Your task to perform on an android device: Open CNN.com Image 0: 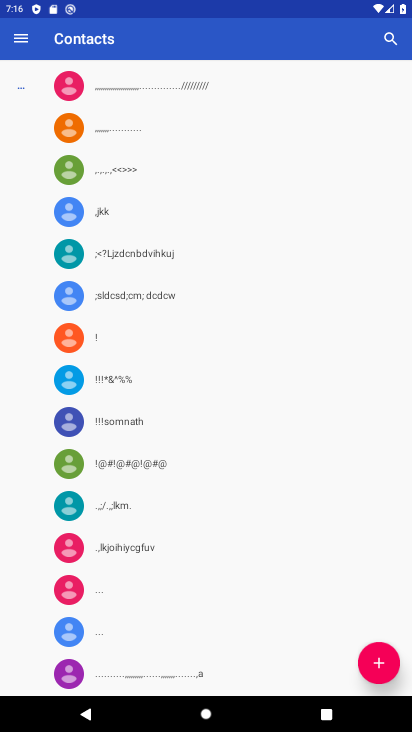
Step 0: press home button
Your task to perform on an android device: Open CNN.com Image 1: 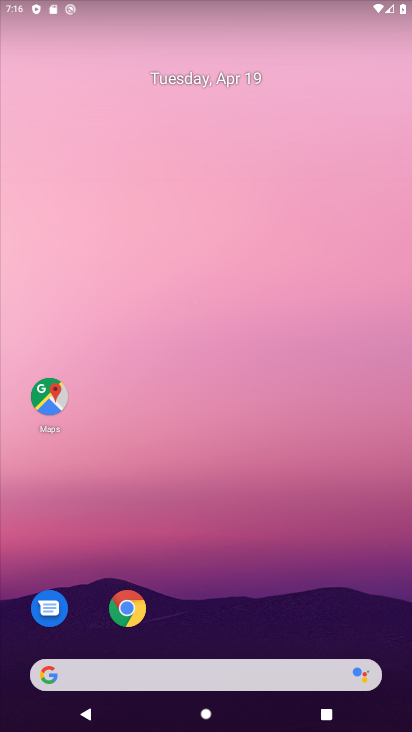
Step 1: click (129, 600)
Your task to perform on an android device: Open CNN.com Image 2: 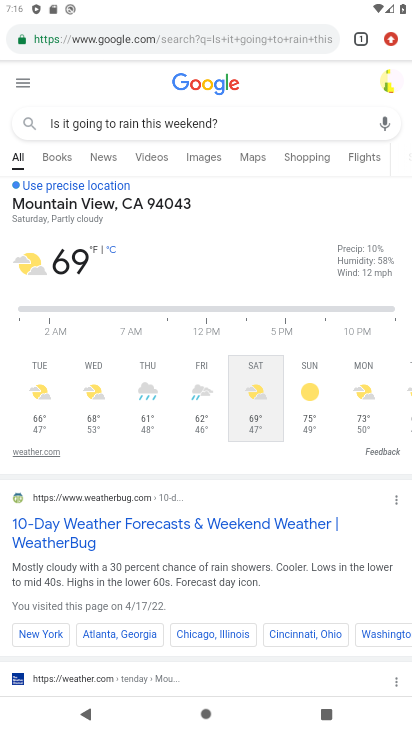
Step 2: click (274, 34)
Your task to perform on an android device: Open CNN.com Image 3: 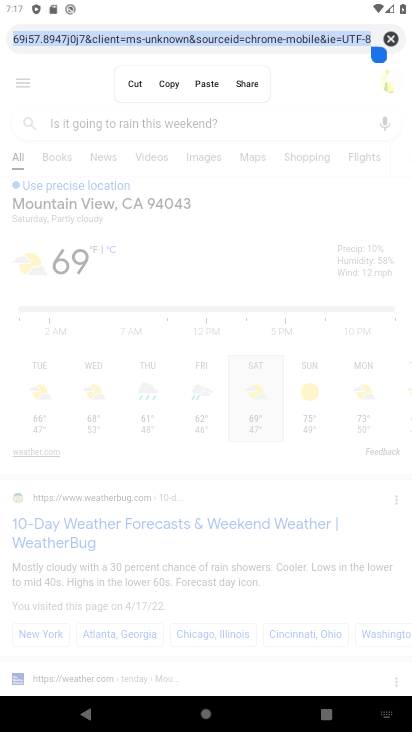
Step 3: click (390, 35)
Your task to perform on an android device: Open CNN.com Image 4: 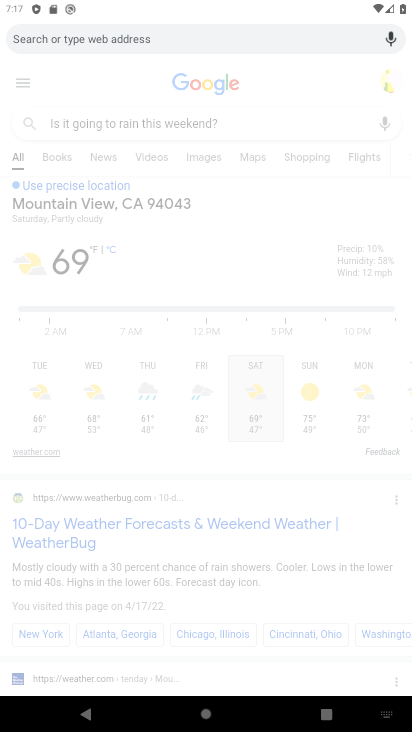
Step 4: type "CNN.com"
Your task to perform on an android device: Open CNN.com Image 5: 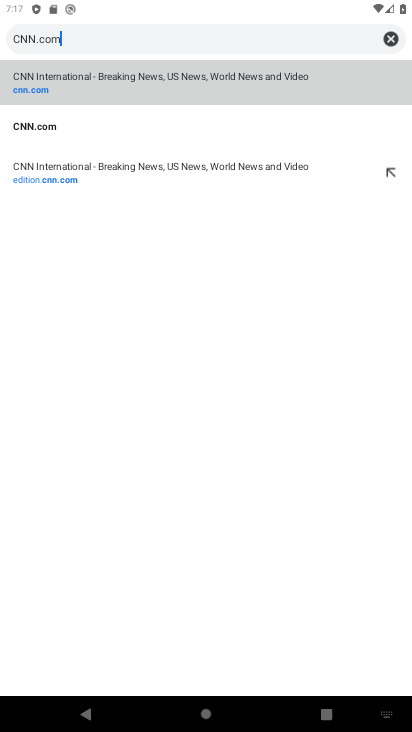
Step 5: click (31, 81)
Your task to perform on an android device: Open CNN.com Image 6: 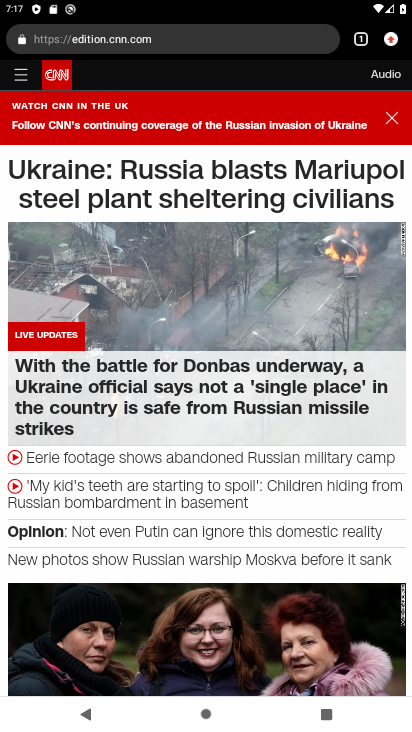
Step 6: task complete